Your task to perform on an android device: View the shopping cart on bestbuy. Add "razer kraken" to the cart on bestbuy, then select checkout. Image 0: 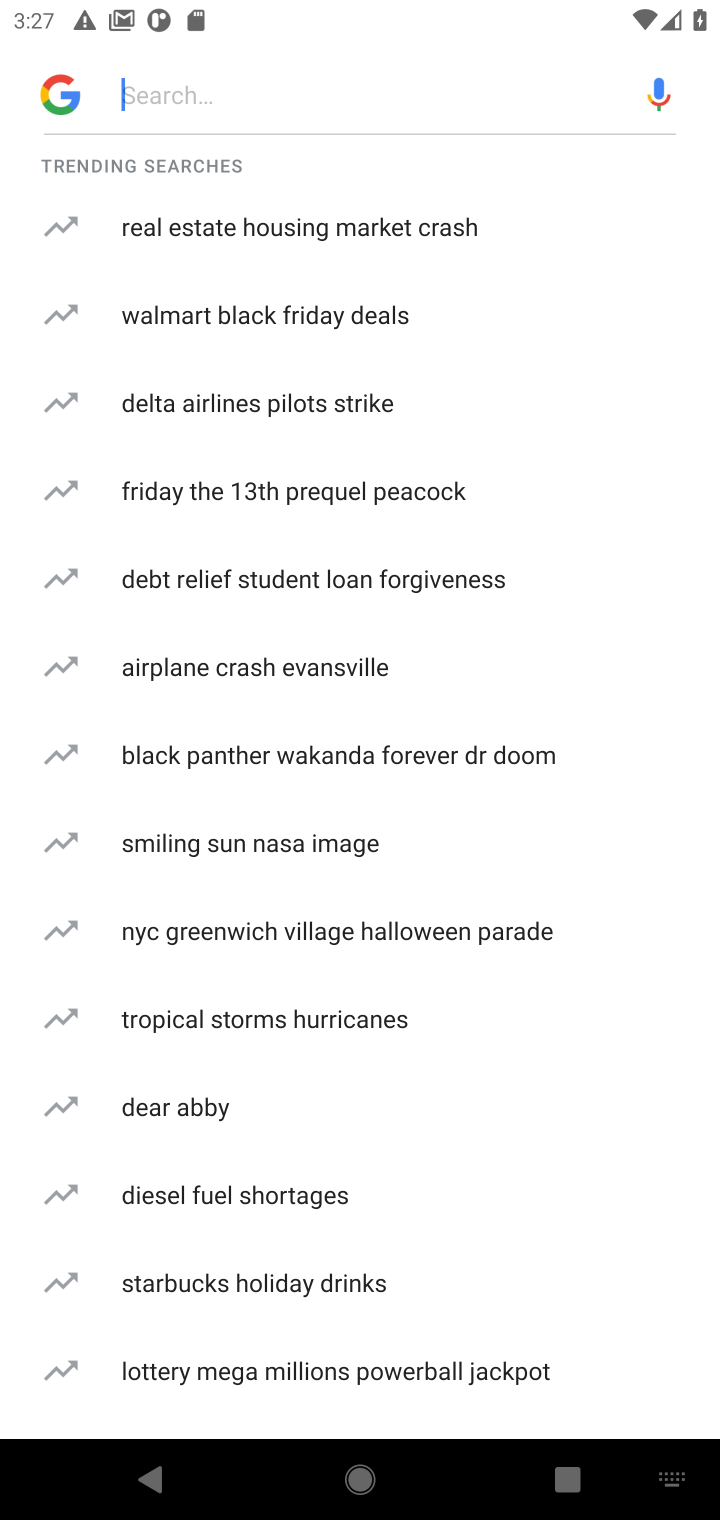
Step 0: press home button
Your task to perform on an android device: View the shopping cart on bestbuy. Add "razer kraken" to the cart on bestbuy, then select checkout. Image 1: 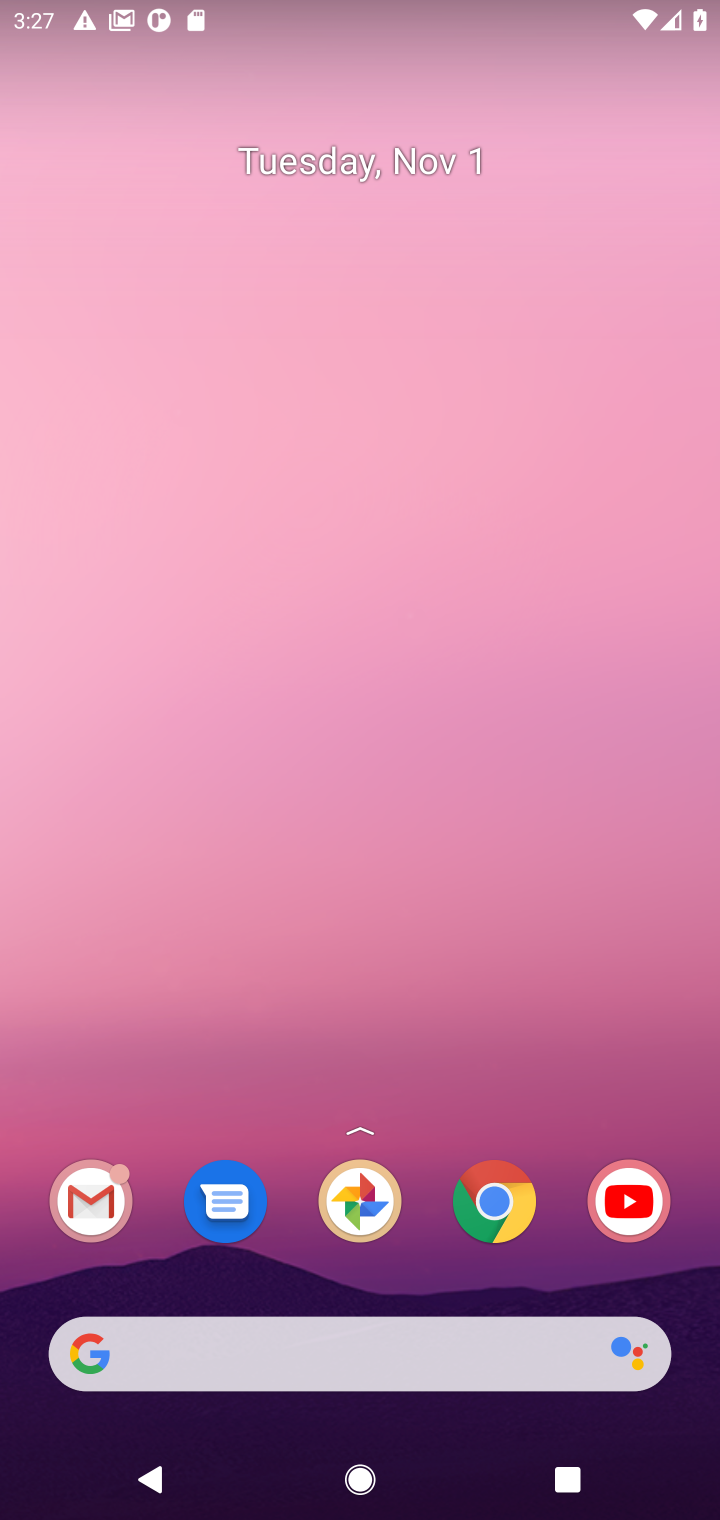
Step 1: drag from (314, 1117) to (377, 294)
Your task to perform on an android device: View the shopping cart on bestbuy. Add "razer kraken" to the cart on bestbuy, then select checkout. Image 2: 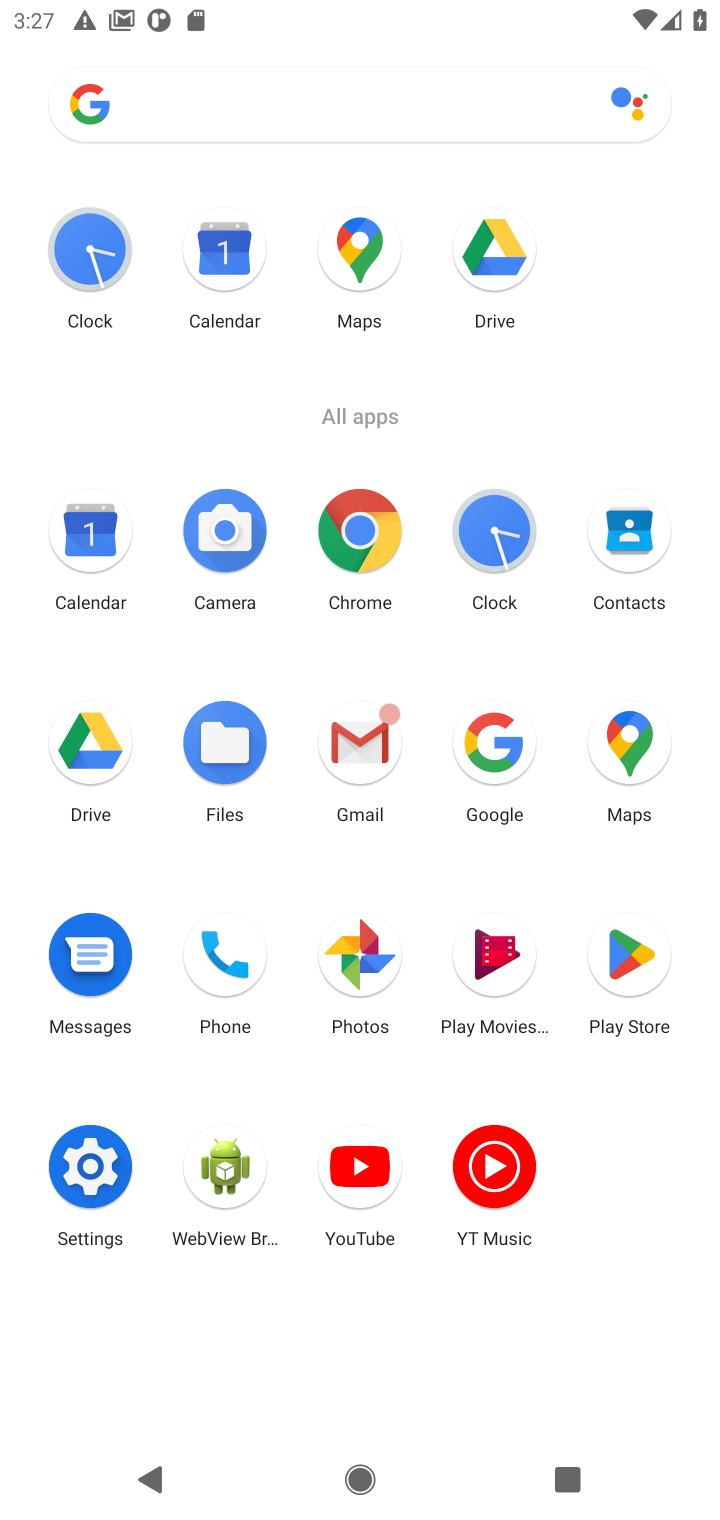
Step 2: click (492, 741)
Your task to perform on an android device: View the shopping cart on bestbuy. Add "razer kraken" to the cart on bestbuy, then select checkout. Image 3: 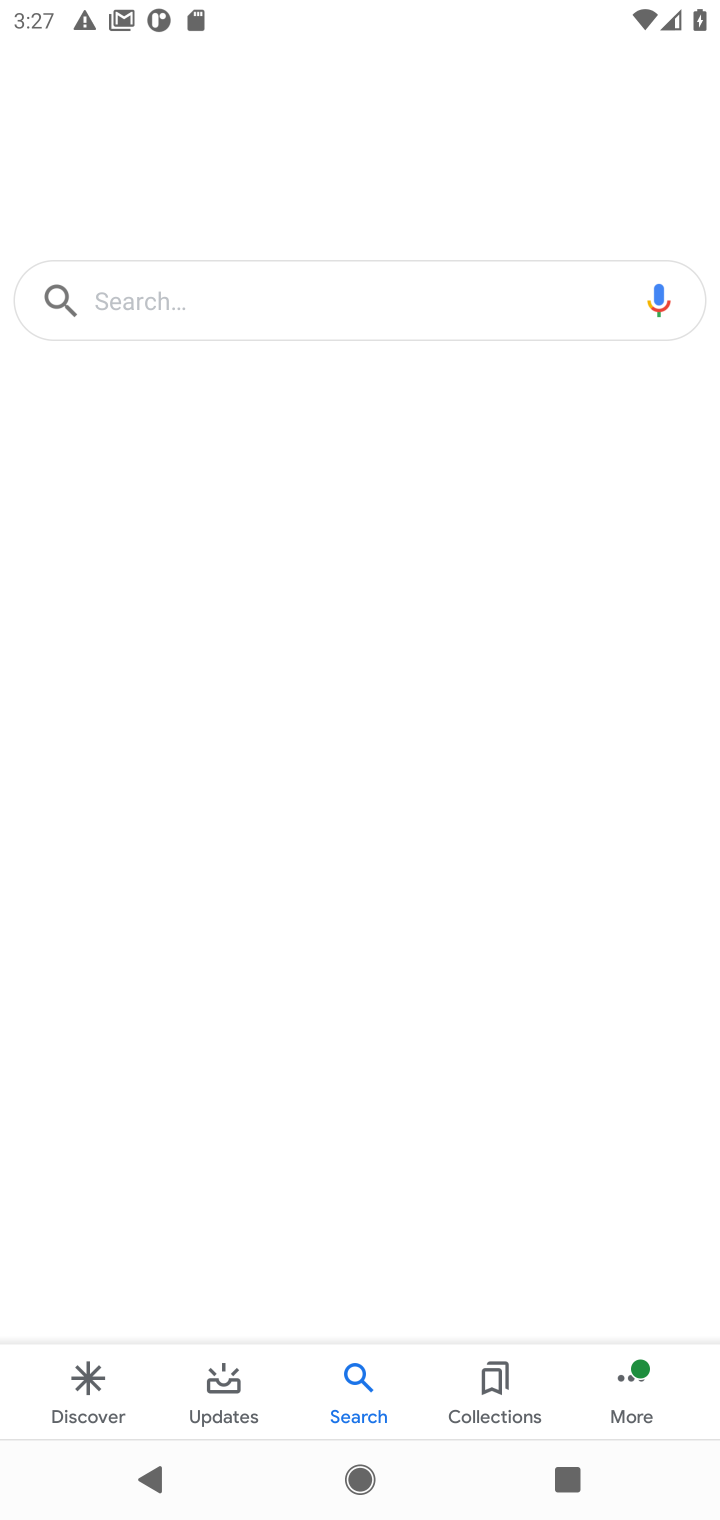
Step 3: click (353, 282)
Your task to perform on an android device: View the shopping cart on bestbuy. Add "razer kraken" to the cart on bestbuy, then select checkout. Image 4: 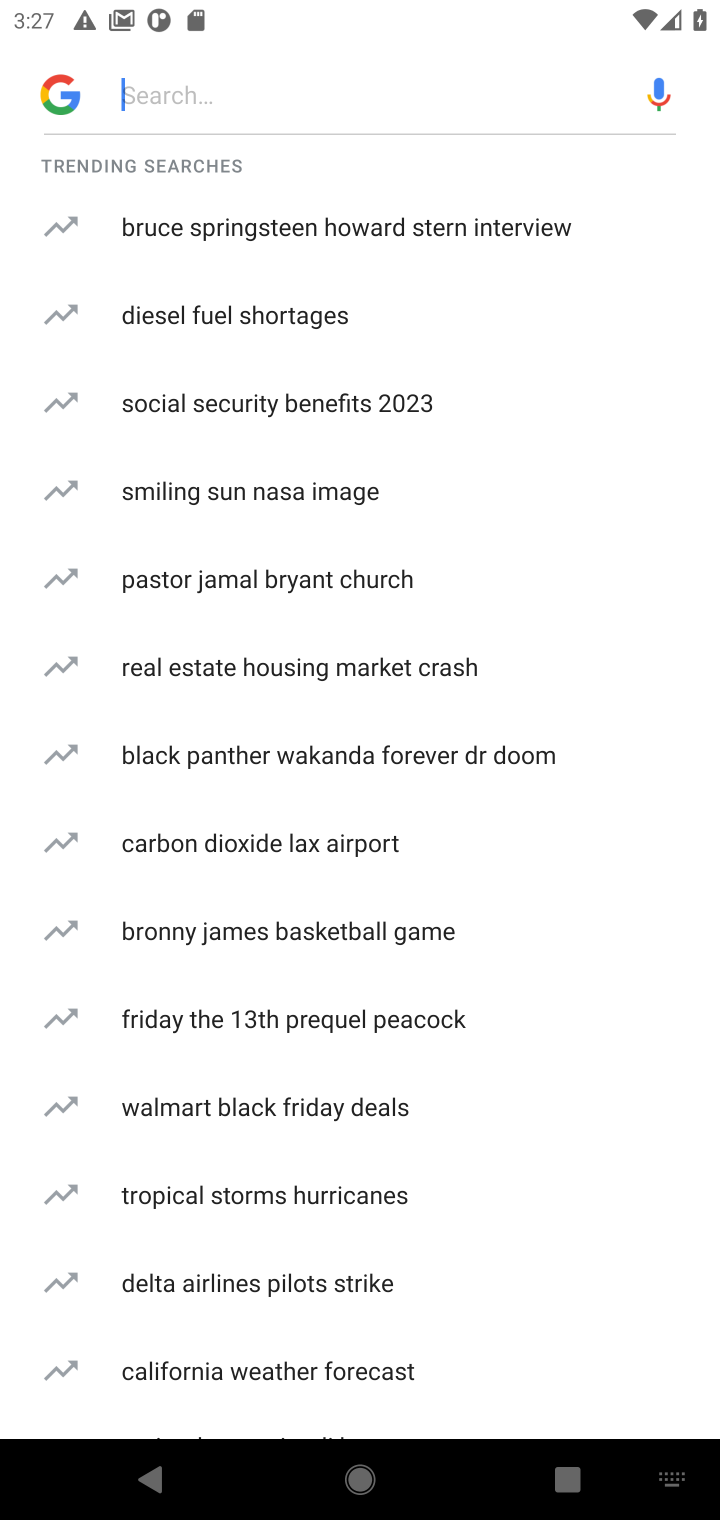
Step 4: type "bestbuy "
Your task to perform on an android device: View the shopping cart on bestbuy. Add "razer kraken" to the cart on bestbuy, then select checkout. Image 5: 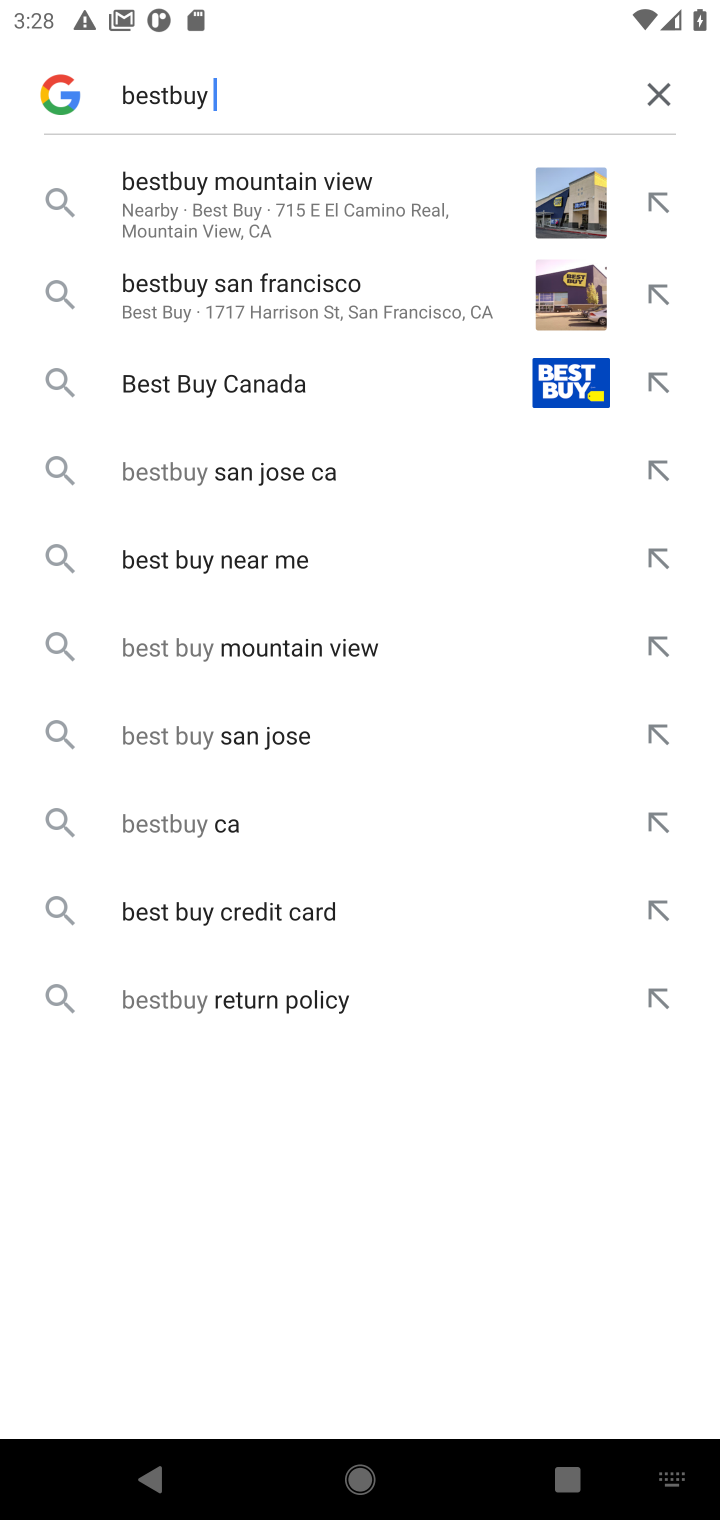
Step 5: click (246, 549)
Your task to perform on an android device: View the shopping cart on bestbuy. Add "razer kraken" to the cart on bestbuy, then select checkout. Image 6: 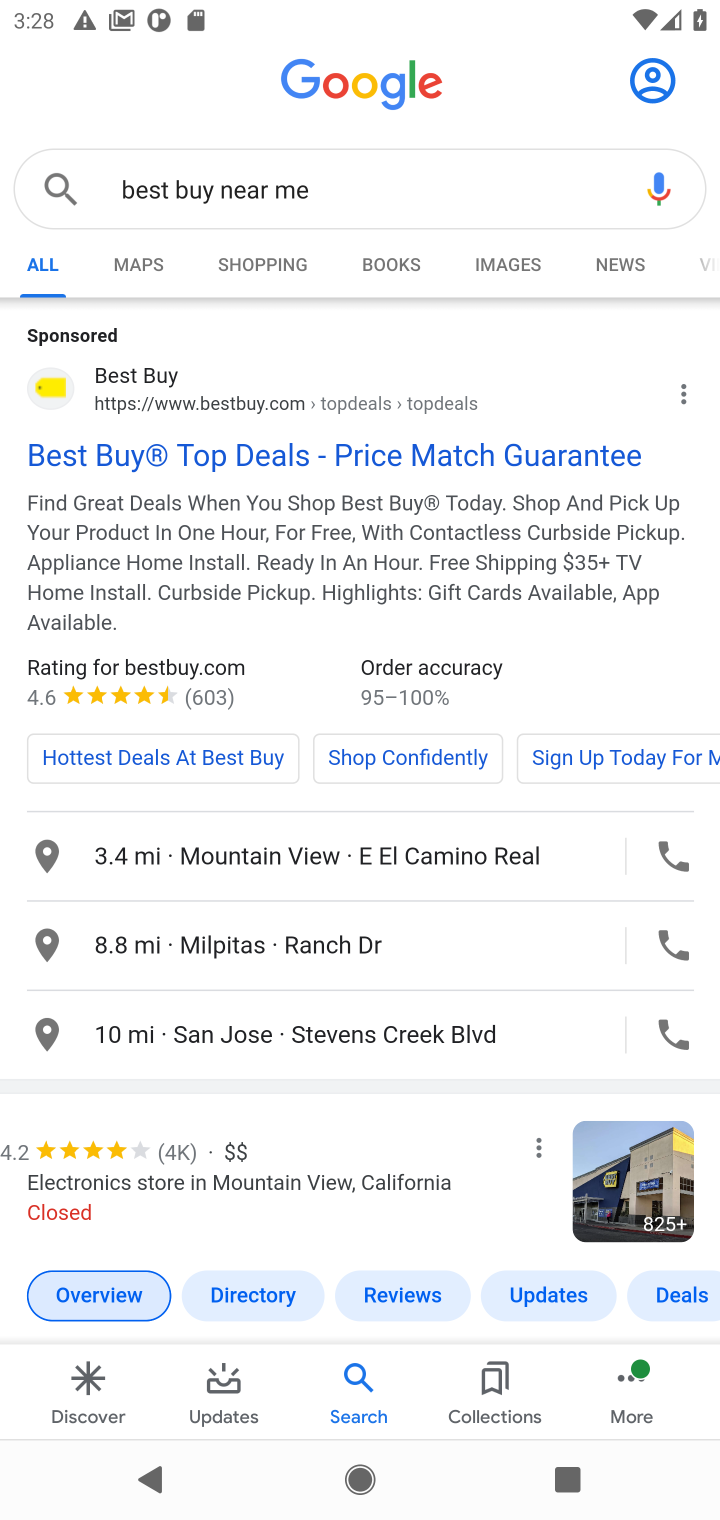
Step 6: drag from (272, 1317) to (294, 711)
Your task to perform on an android device: View the shopping cart on bestbuy. Add "razer kraken" to the cart on bestbuy, then select checkout. Image 7: 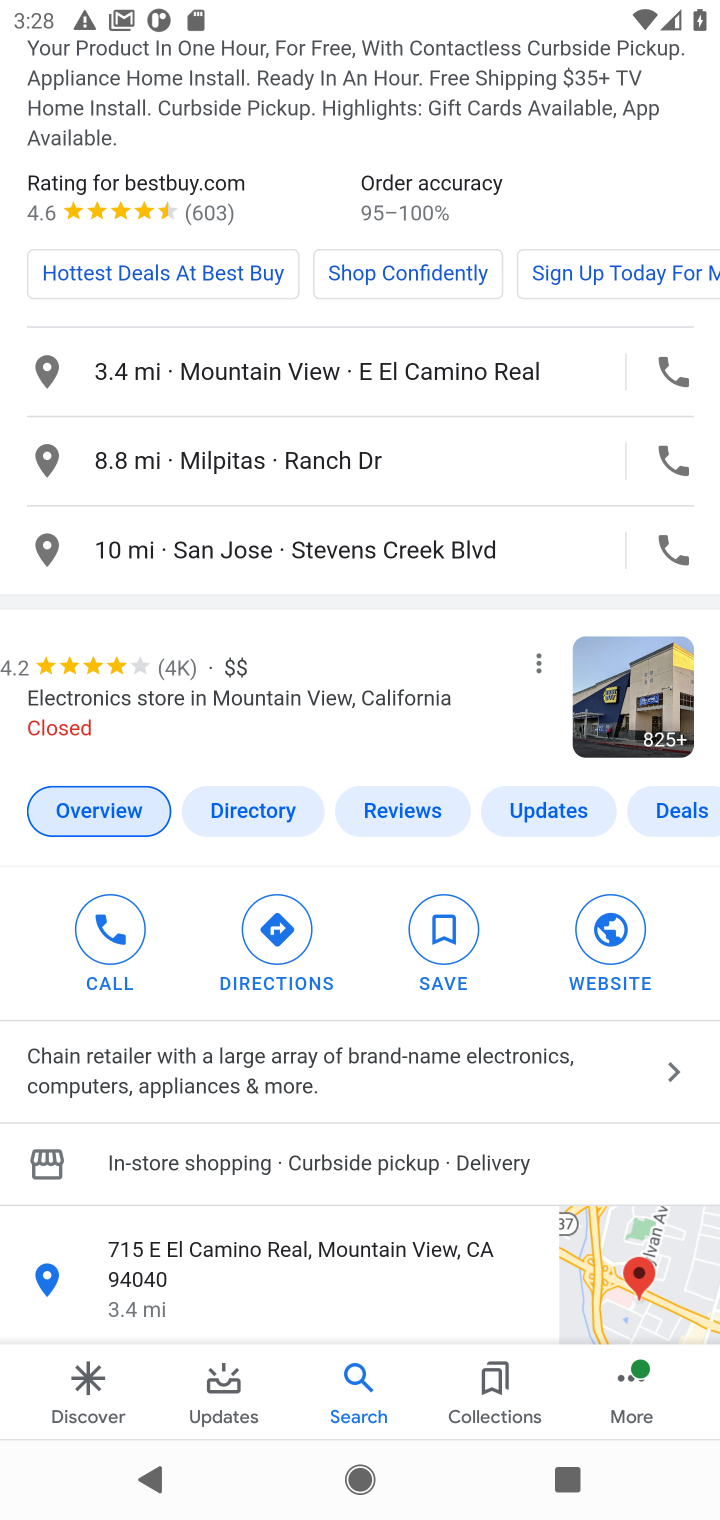
Step 7: drag from (193, 1170) to (324, 440)
Your task to perform on an android device: View the shopping cart on bestbuy. Add "razer kraken" to the cart on bestbuy, then select checkout. Image 8: 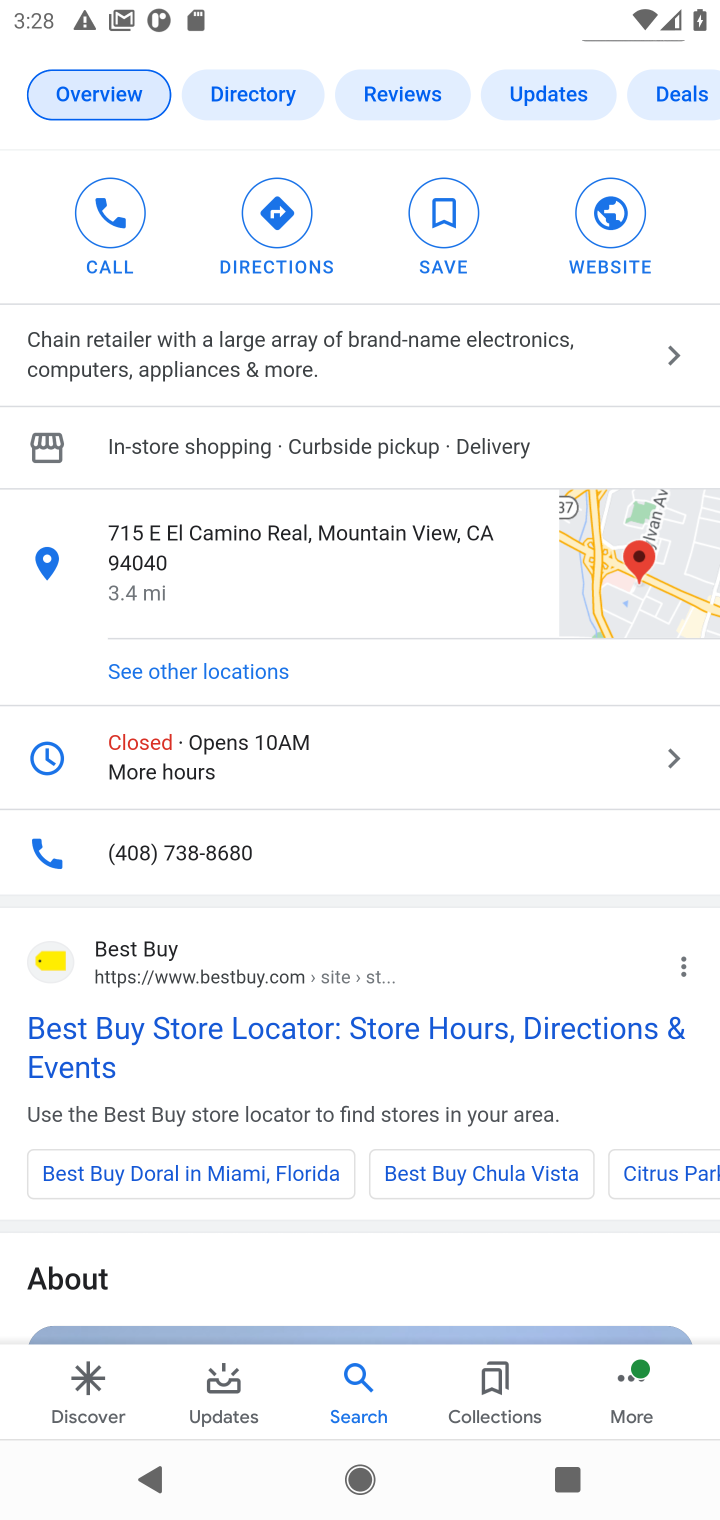
Step 8: click (47, 950)
Your task to perform on an android device: View the shopping cart on bestbuy. Add "razer kraken" to the cart on bestbuy, then select checkout. Image 9: 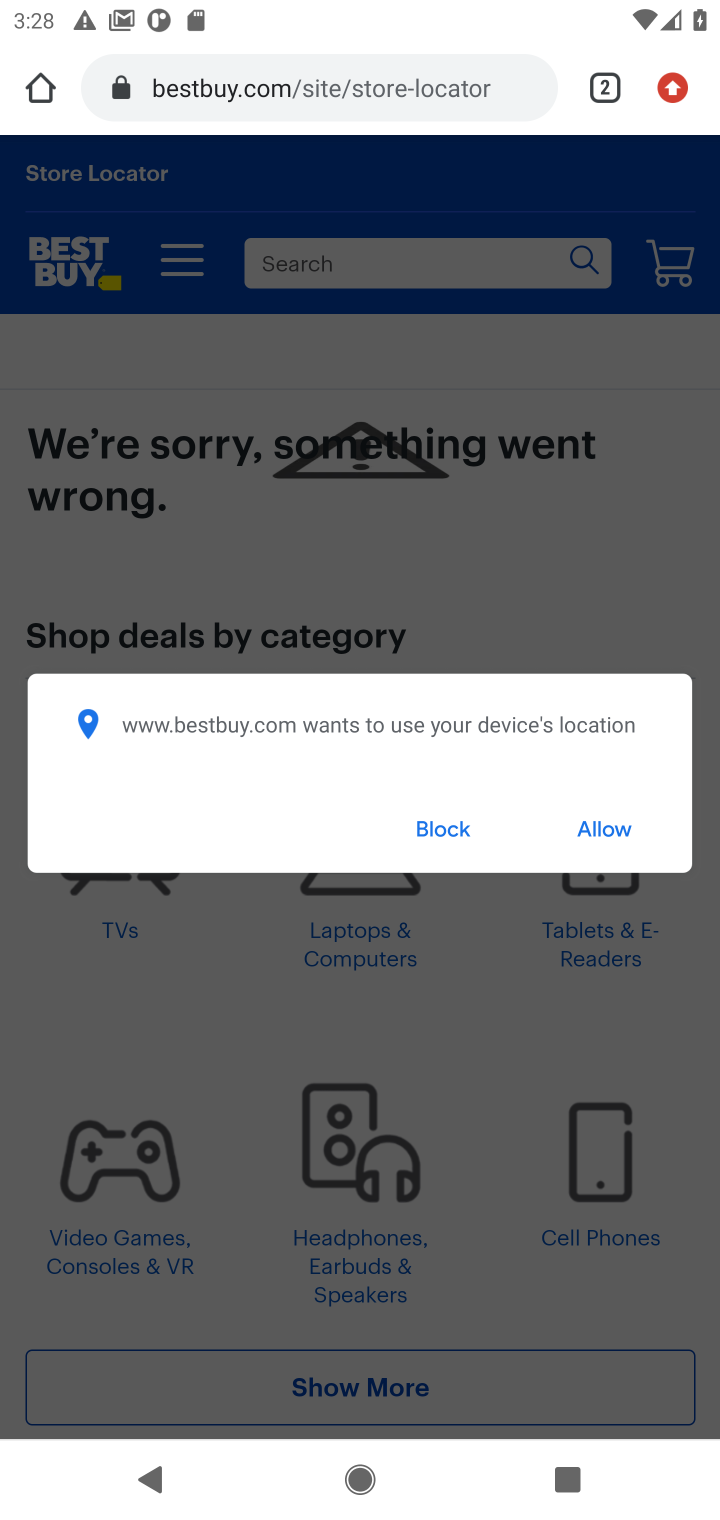
Step 9: click (581, 825)
Your task to perform on an android device: View the shopping cart on bestbuy. Add "razer kraken" to the cart on bestbuy, then select checkout. Image 10: 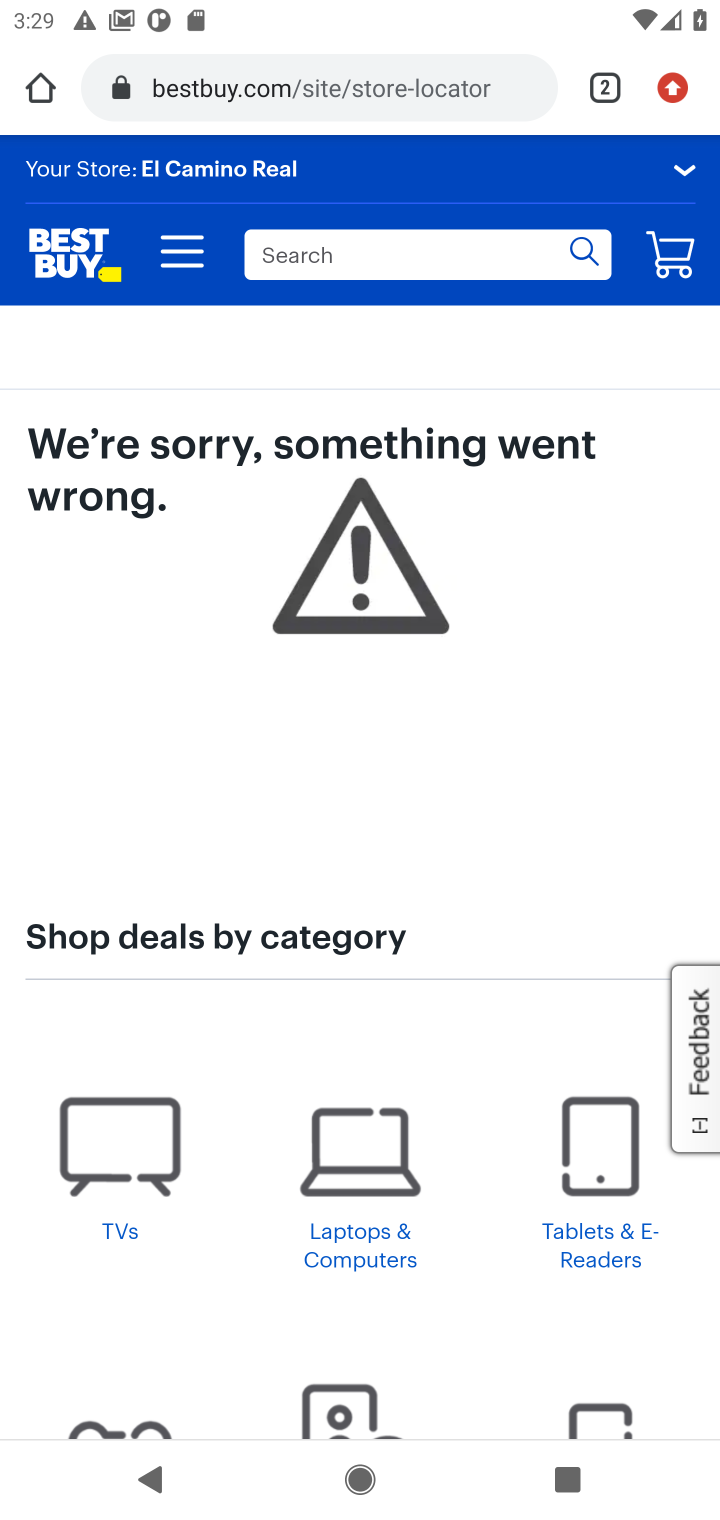
Step 10: type "razer kraken "
Your task to perform on an android device: View the shopping cart on bestbuy. Add "razer kraken" to the cart on bestbuy, then select checkout. Image 11: 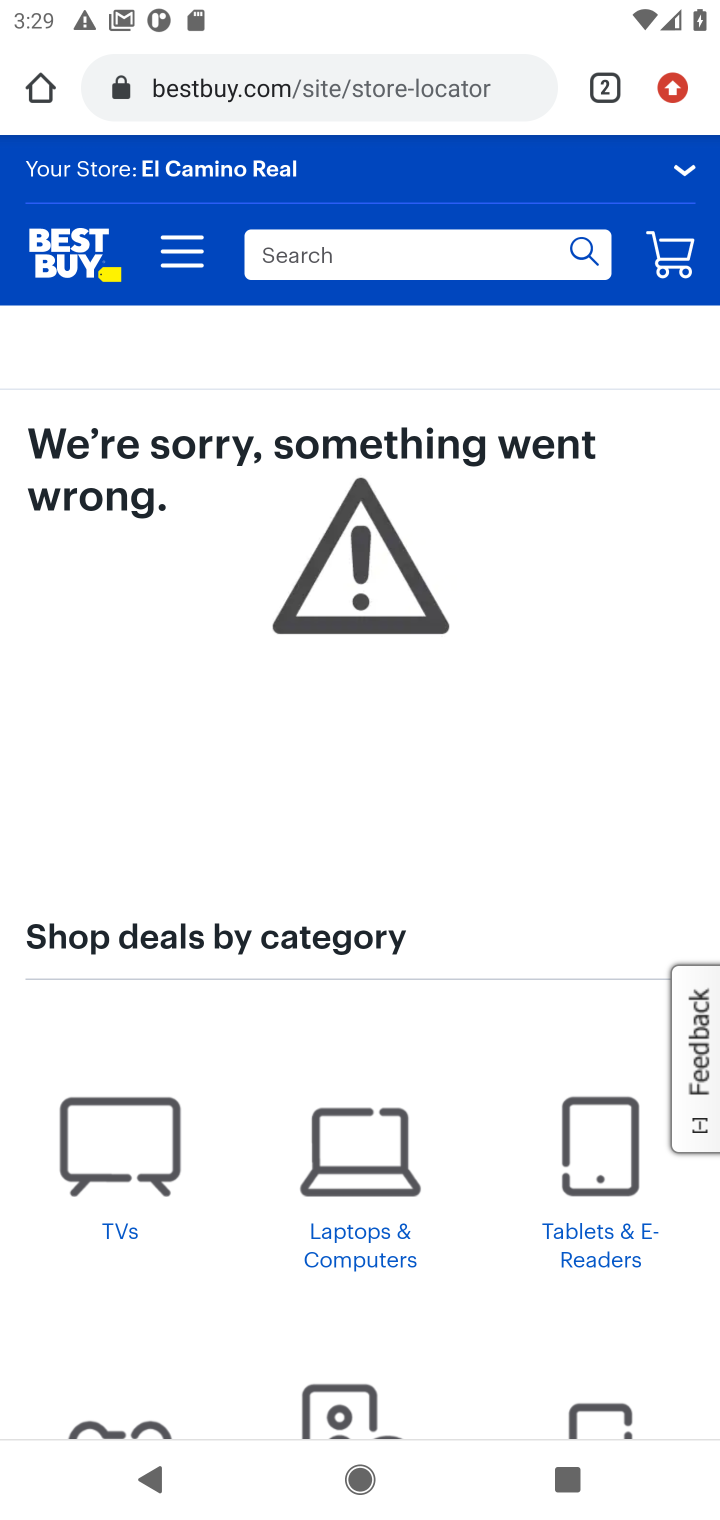
Step 11: click (388, 248)
Your task to perform on an android device: View the shopping cart on bestbuy. Add "razer kraken" to the cart on bestbuy, then select checkout. Image 12: 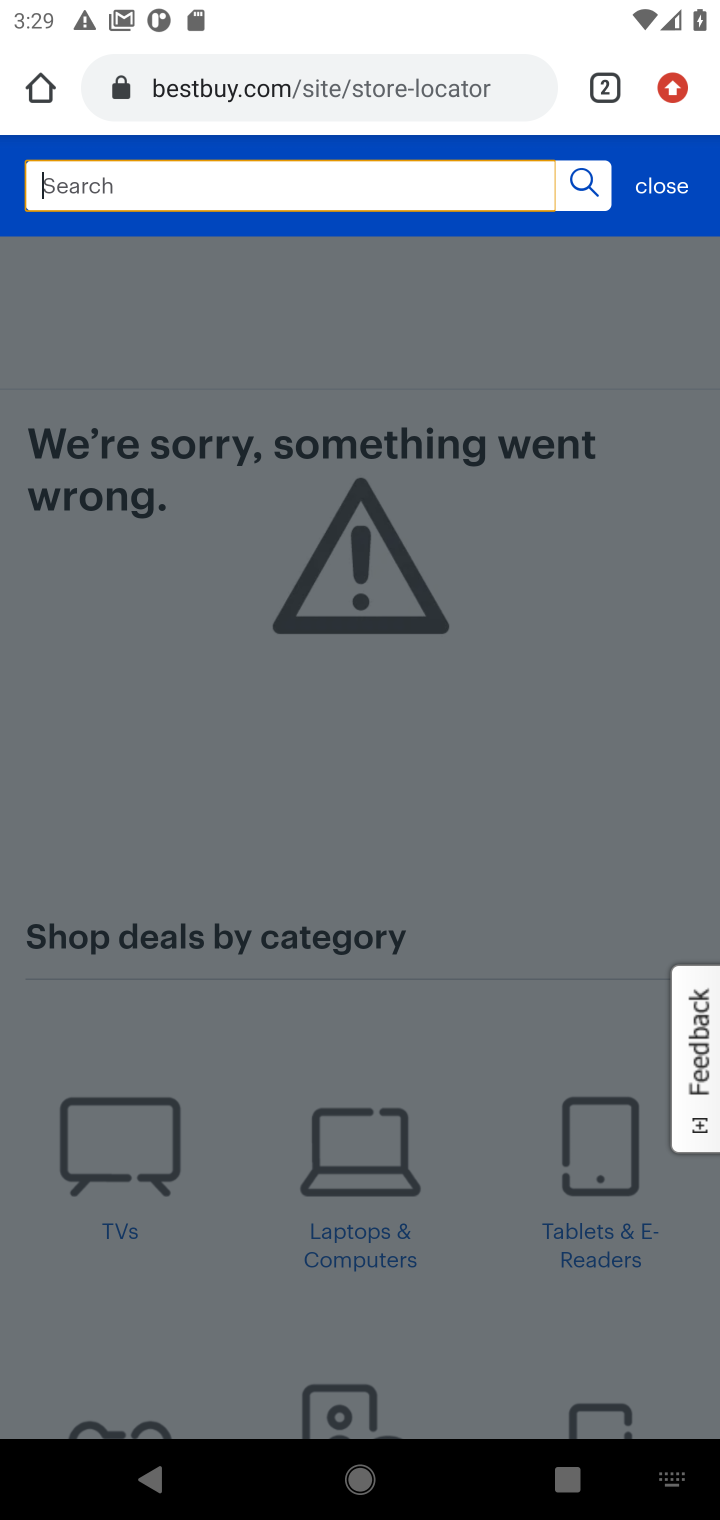
Step 12: click (287, 169)
Your task to perform on an android device: View the shopping cart on bestbuy. Add "razer kraken" to the cart on bestbuy, then select checkout. Image 13: 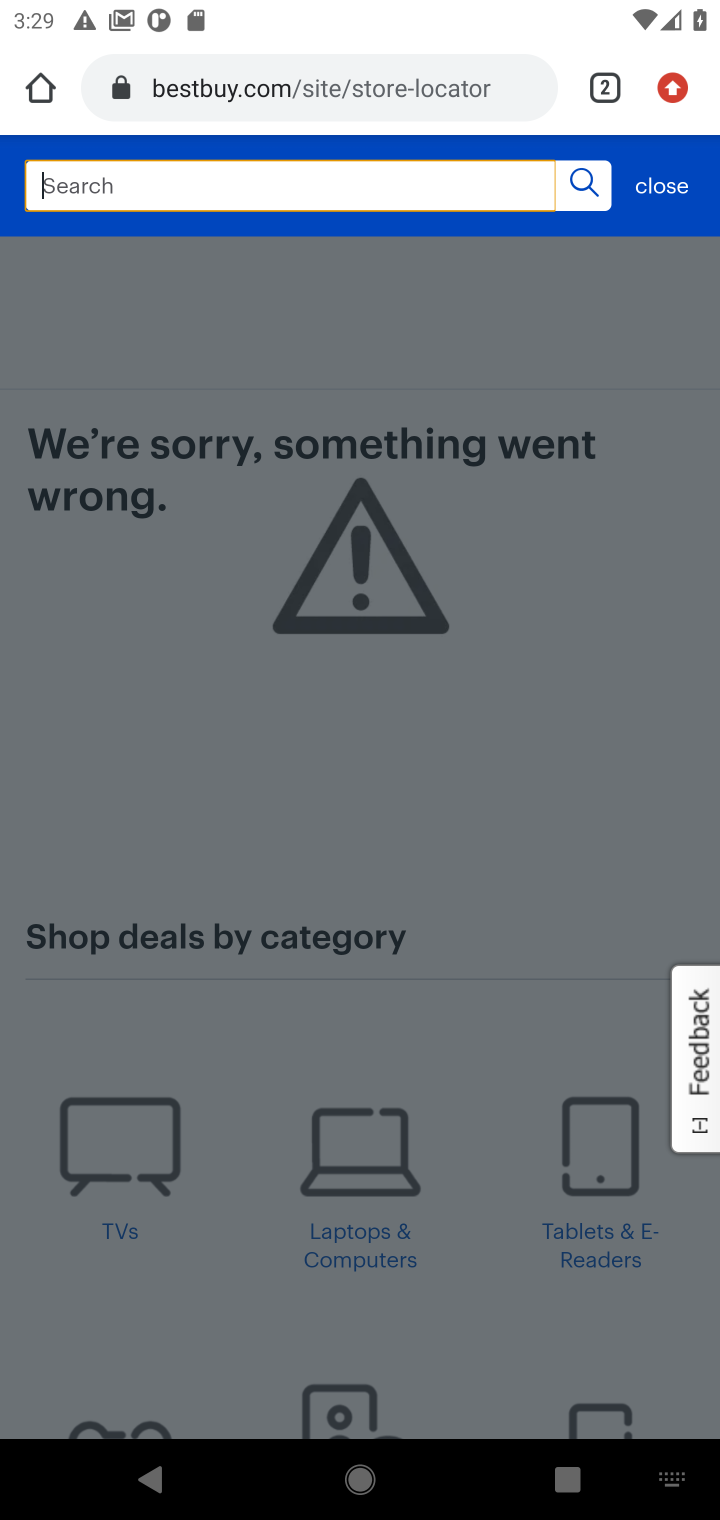
Step 13: type "razer kraken "
Your task to perform on an android device: View the shopping cart on bestbuy. Add "razer kraken" to the cart on bestbuy, then select checkout. Image 14: 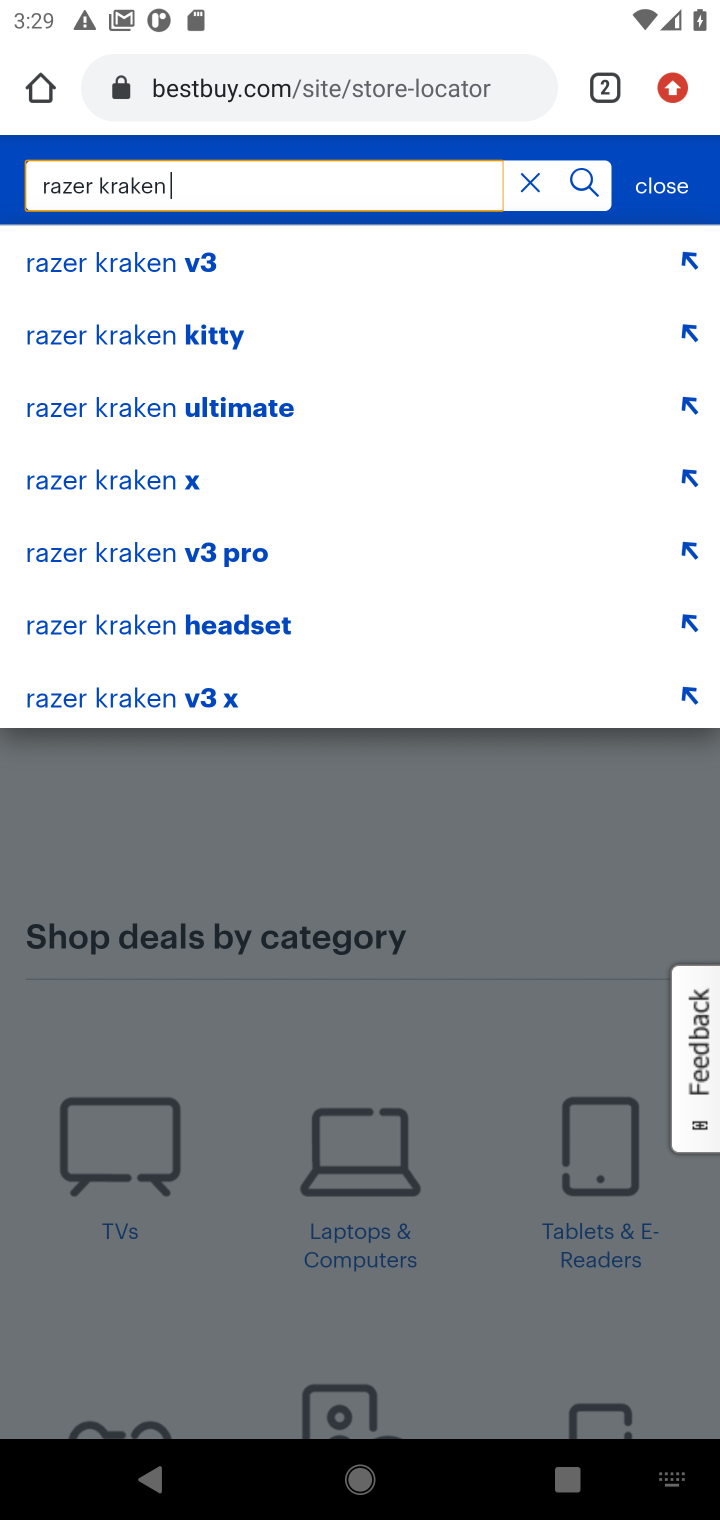
Step 14: click (115, 249)
Your task to perform on an android device: View the shopping cart on bestbuy. Add "razer kraken" to the cart on bestbuy, then select checkout. Image 15: 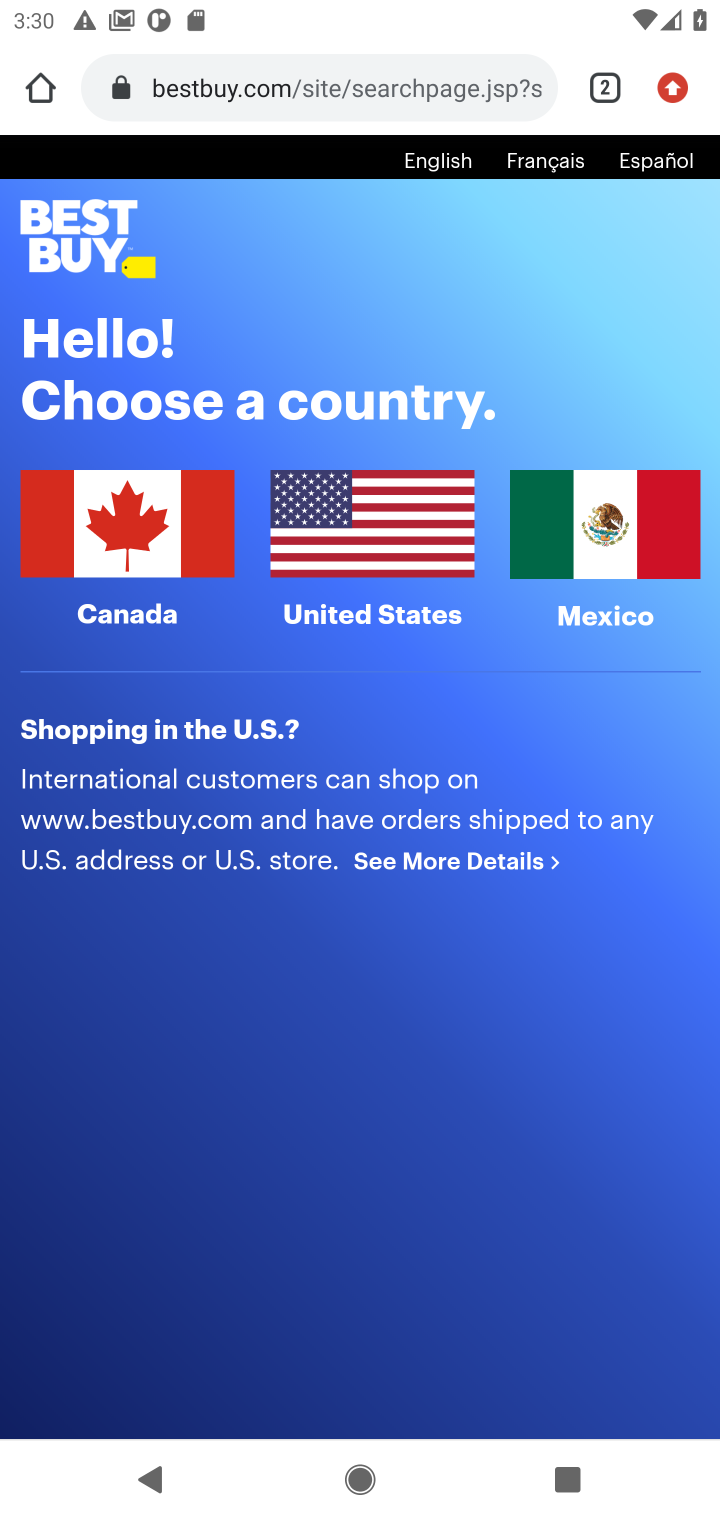
Step 15: click (342, 444)
Your task to perform on an android device: View the shopping cart on bestbuy. Add "razer kraken" to the cart on bestbuy, then select checkout. Image 16: 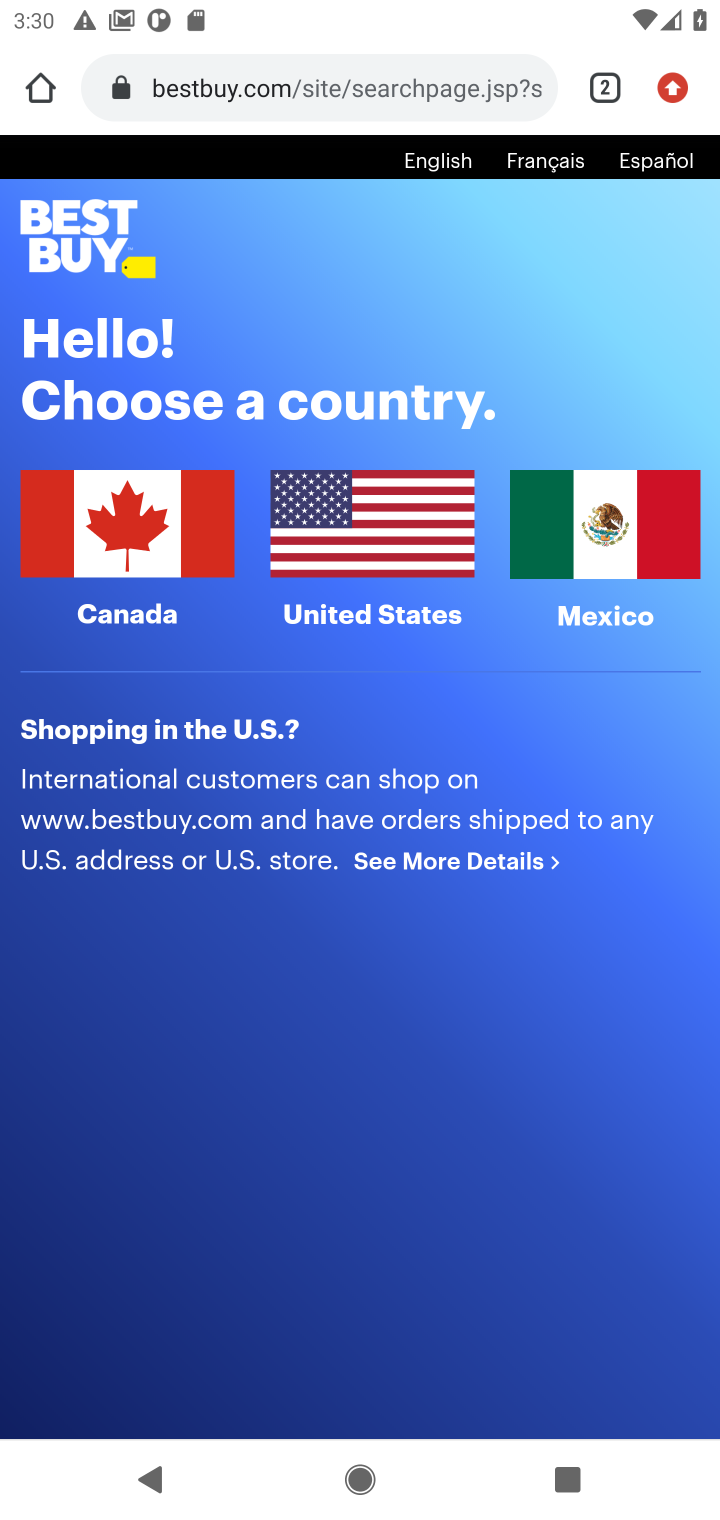
Step 16: click (334, 504)
Your task to perform on an android device: View the shopping cart on bestbuy. Add "razer kraken" to the cart on bestbuy, then select checkout. Image 17: 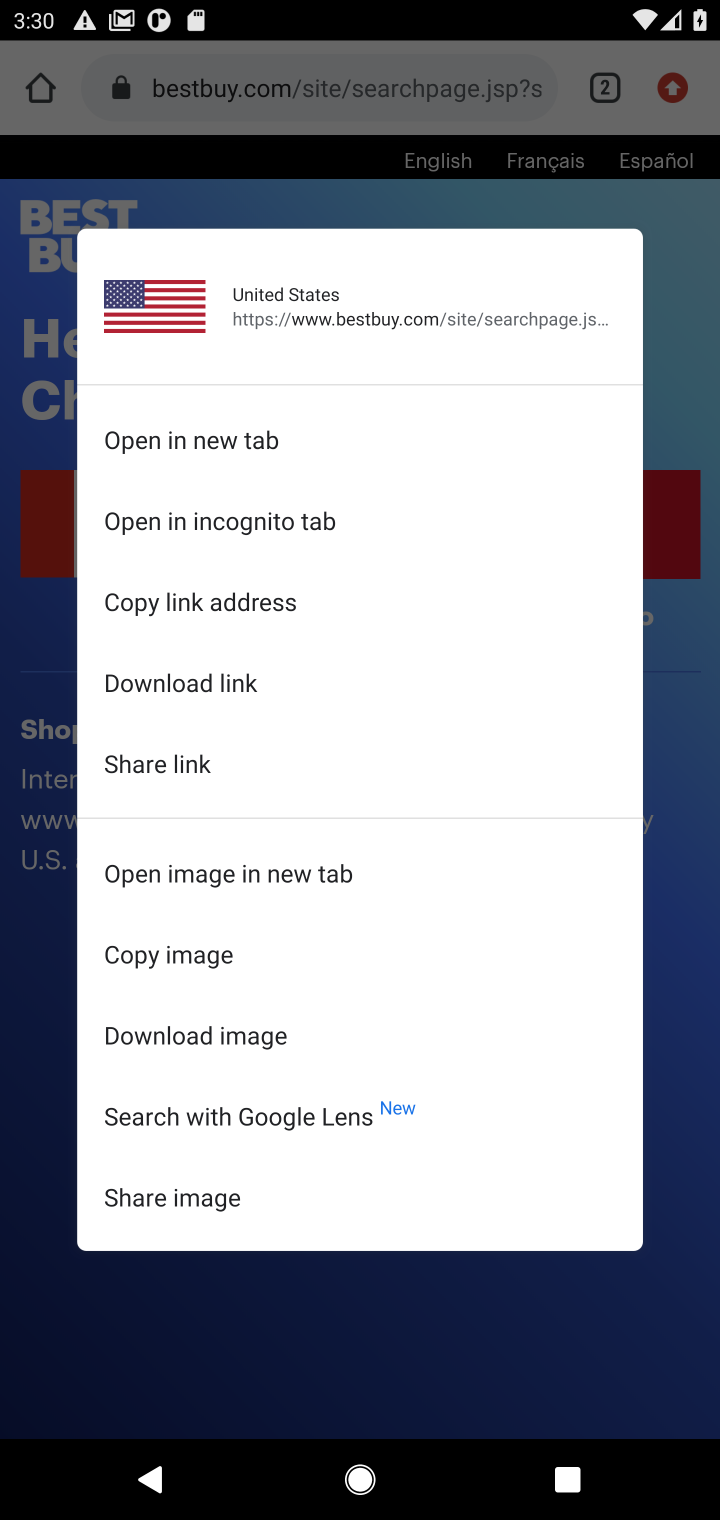
Step 17: click (334, 536)
Your task to perform on an android device: View the shopping cart on bestbuy. Add "razer kraken" to the cart on bestbuy, then select checkout. Image 18: 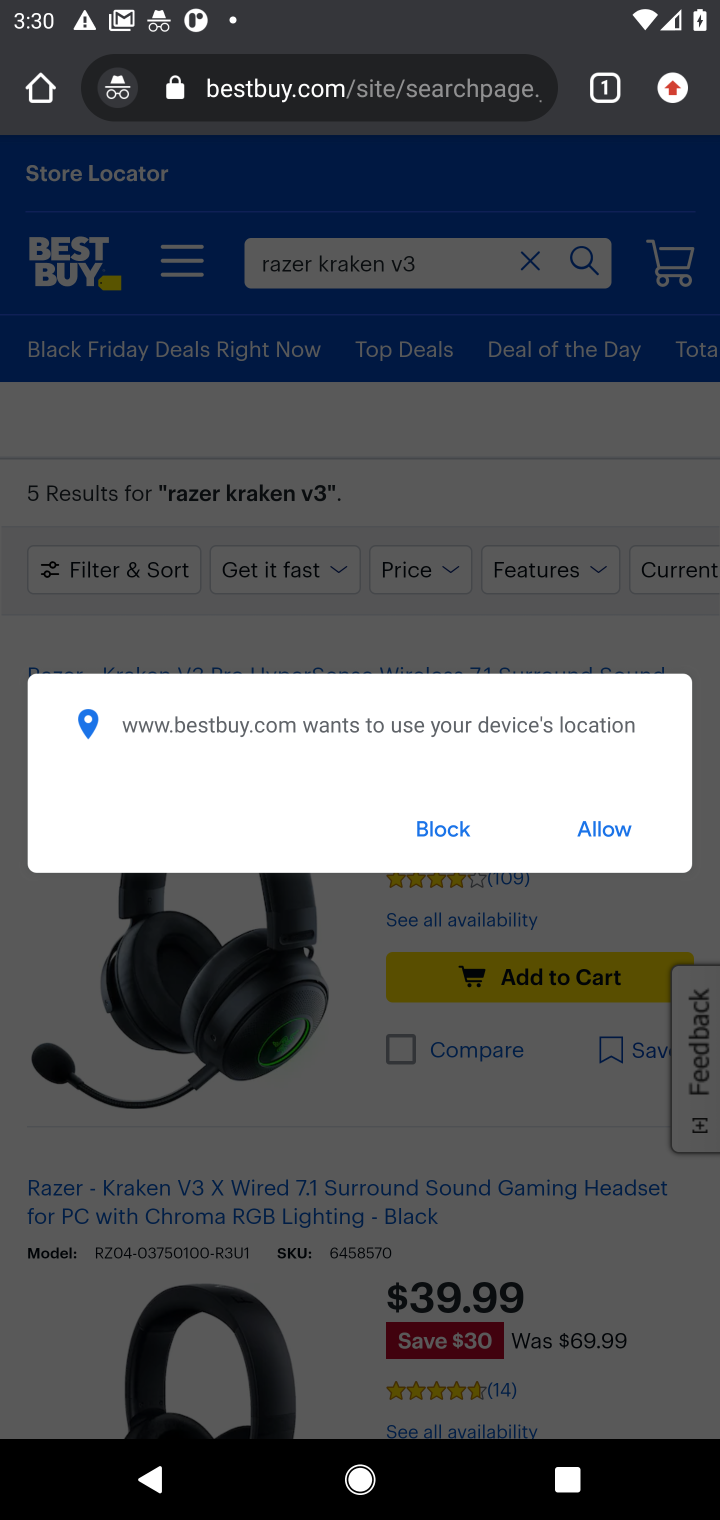
Step 18: click (613, 827)
Your task to perform on an android device: View the shopping cart on bestbuy. Add "razer kraken" to the cart on bestbuy, then select checkout. Image 19: 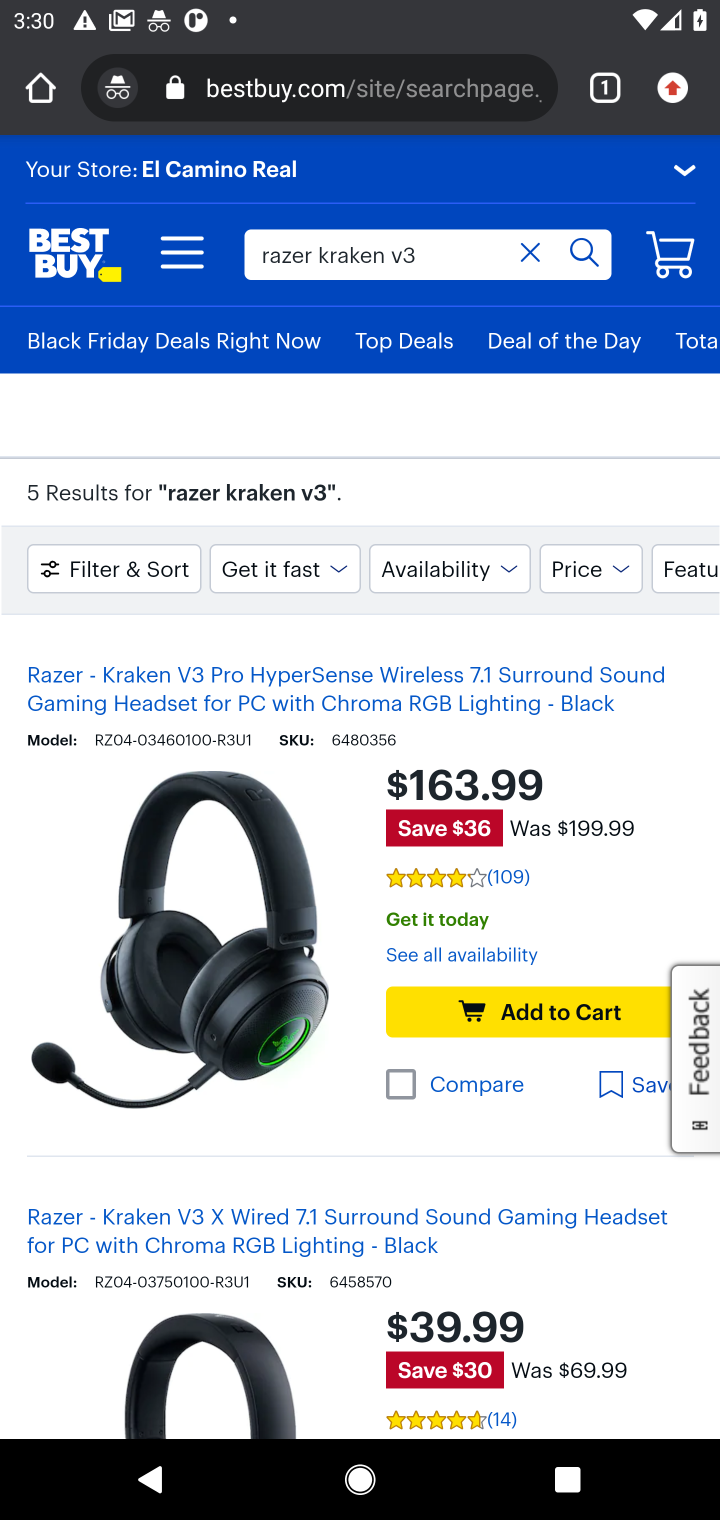
Step 19: click (498, 1010)
Your task to perform on an android device: View the shopping cart on bestbuy. Add "razer kraken" to the cart on bestbuy, then select checkout. Image 20: 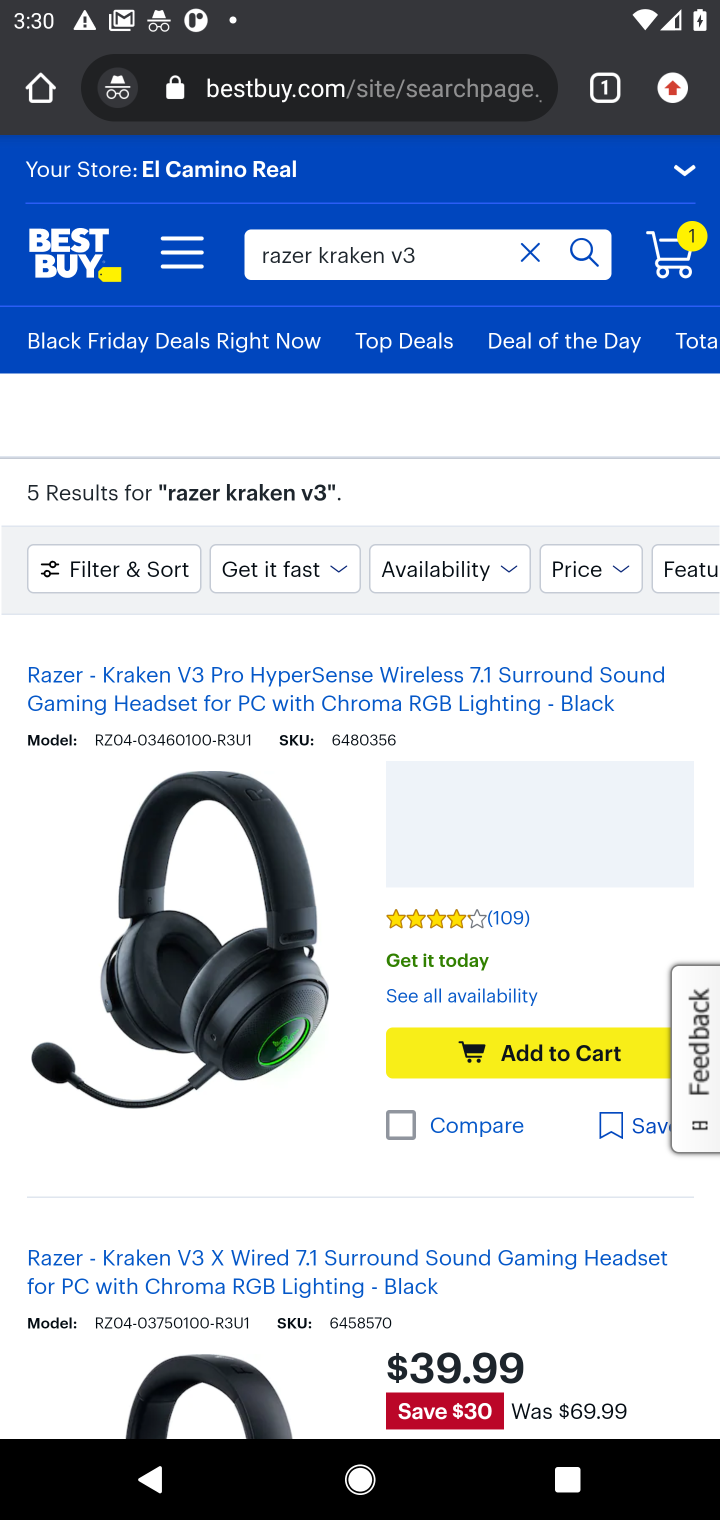
Step 20: task complete